Your task to perform on an android device: Find coffee shops on Maps Image 0: 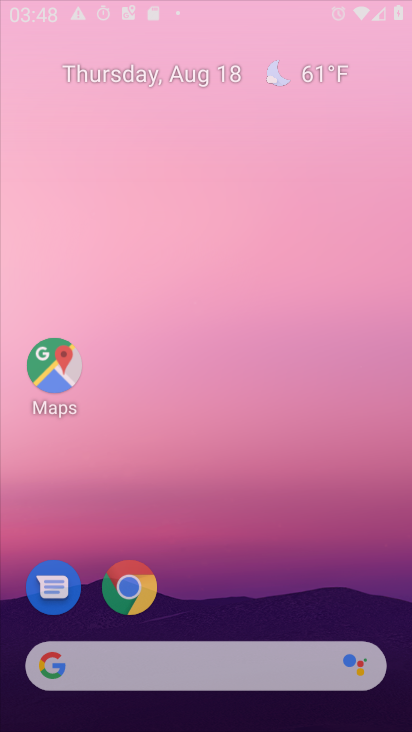
Step 0: press home button
Your task to perform on an android device: Find coffee shops on Maps Image 1: 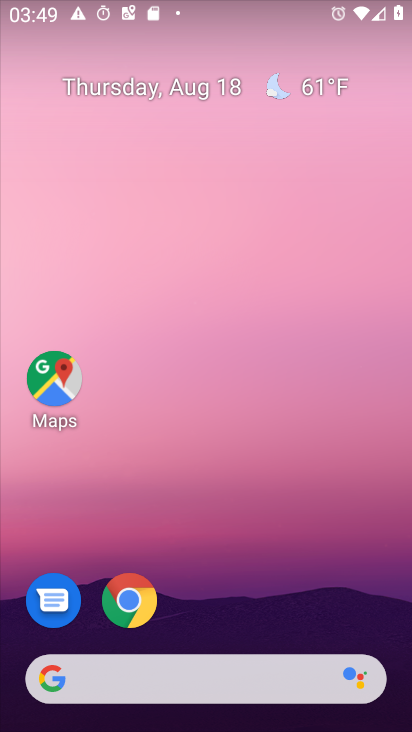
Step 1: click (51, 382)
Your task to perform on an android device: Find coffee shops on Maps Image 2: 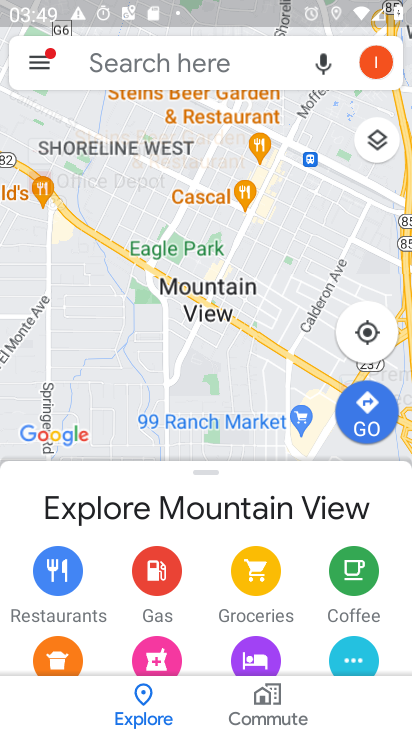
Step 2: click (225, 53)
Your task to perform on an android device: Find coffee shops on Maps Image 3: 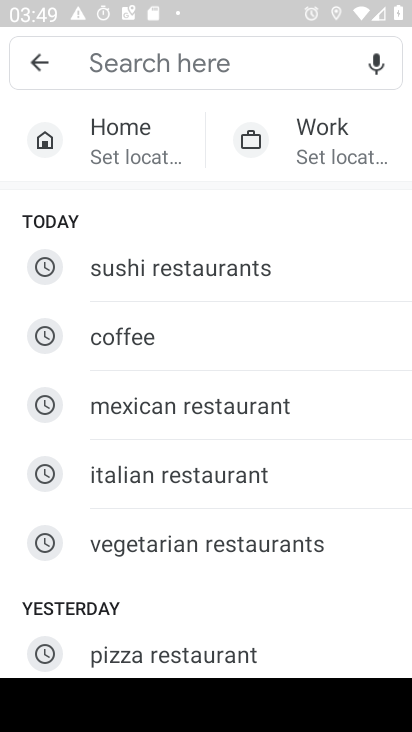
Step 3: type "coffee shops"
Your task to perform on an android device: Find coffee shops on Maps Image 4: 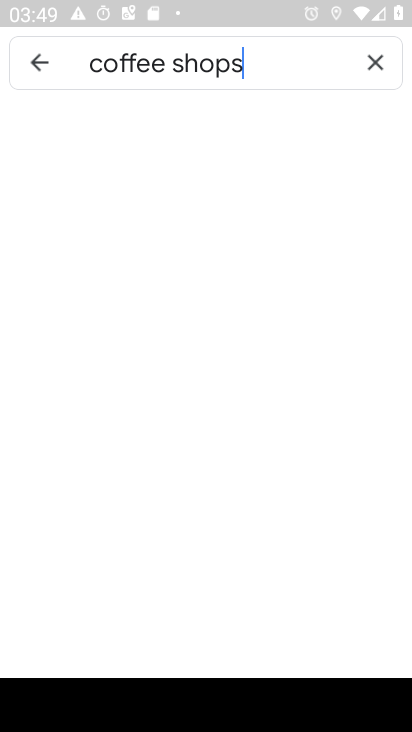
Step 4: press enter
Your task to perform on an android device: Find coffee shops on Maps Image 5: 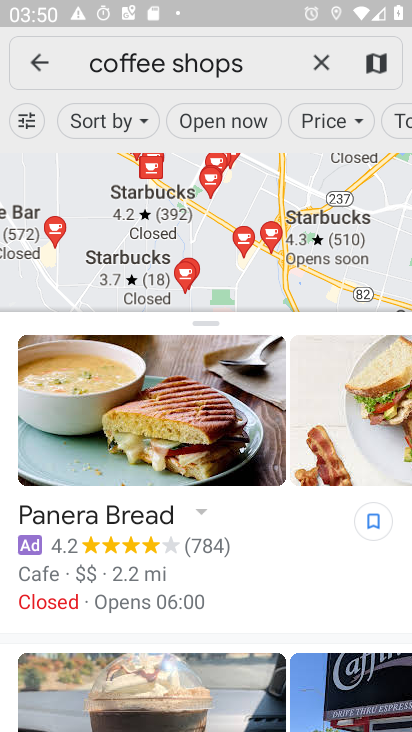
Step 5: task complete